Your task to perform on an android device: Open maps Image 0: 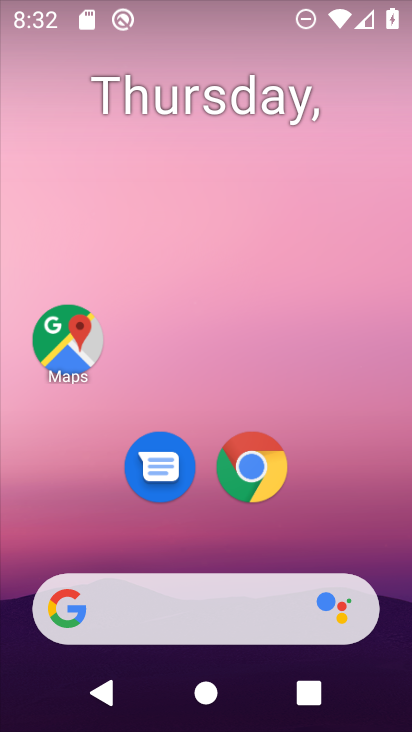
Step 0: click (51, 337)
Your task to perform on an android device: Open maps Image 1: 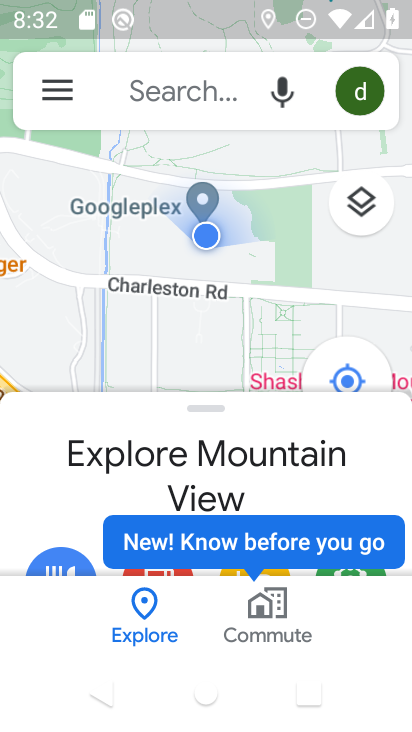
Step 1: task complete